Your task to perform on an android device: empty trash in the gmail app Image 0: 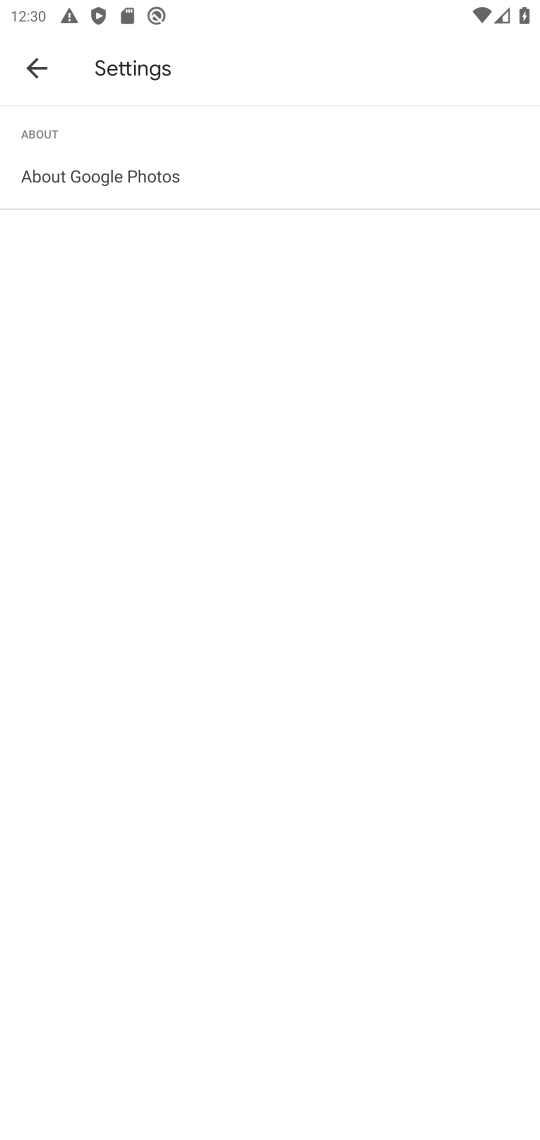
Step 0: press home button
Your task to perform on an android device: empty trash in the gmail app Image 1: 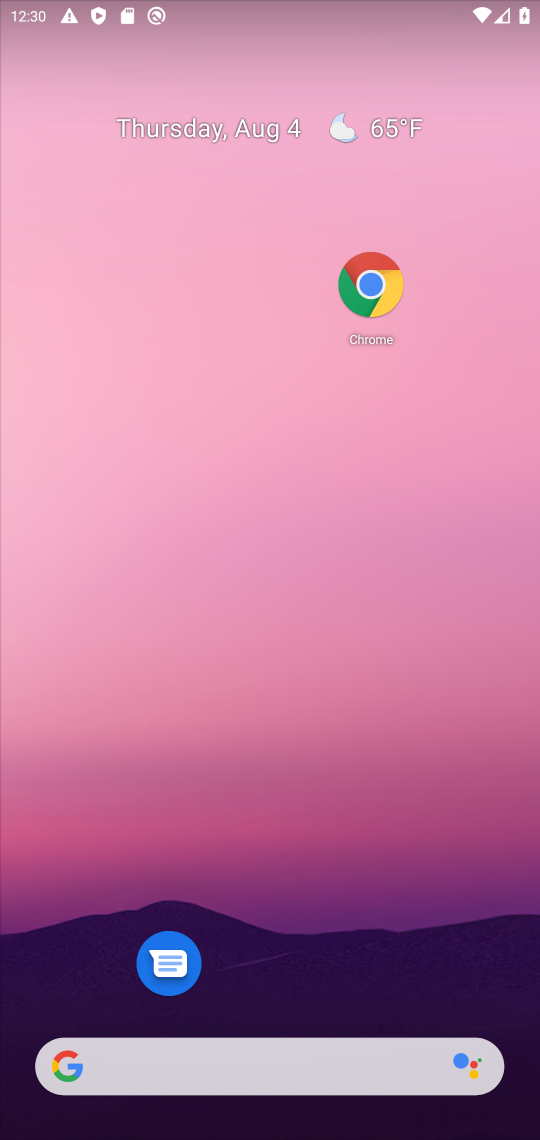
Step 1: drag from (337, 992) to (271, 347)
Your task to perform on an android device: empty trash in the gmail app Image 2: 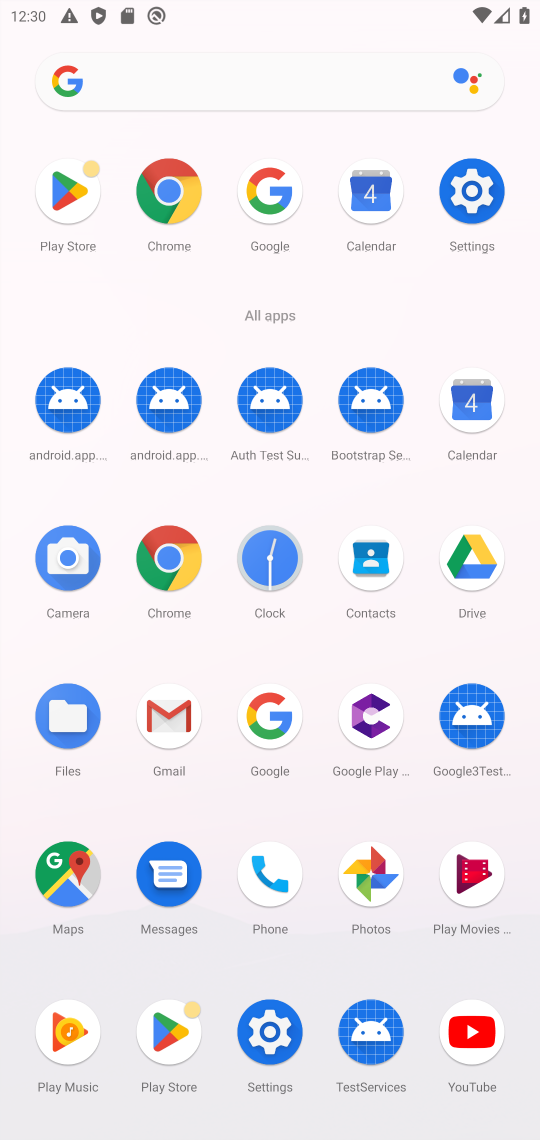
Step 2: click (163, 707)
Your task to perform on an android device: empty trash in the gmail app Image 3: 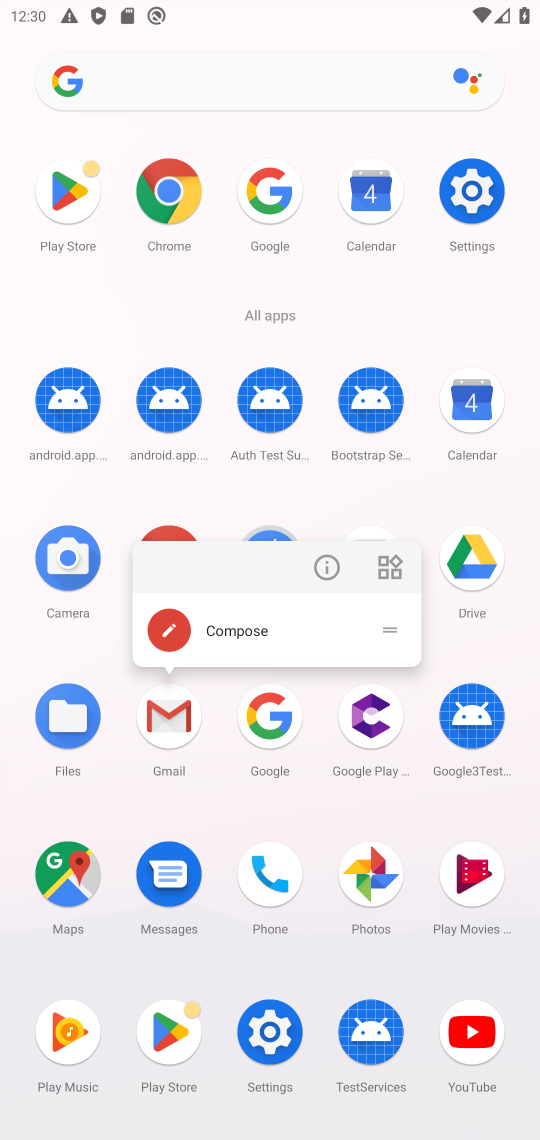
Step 3: click (177, 719)
Your task to perform on an android device: empty trash in the gmail app Image 4: 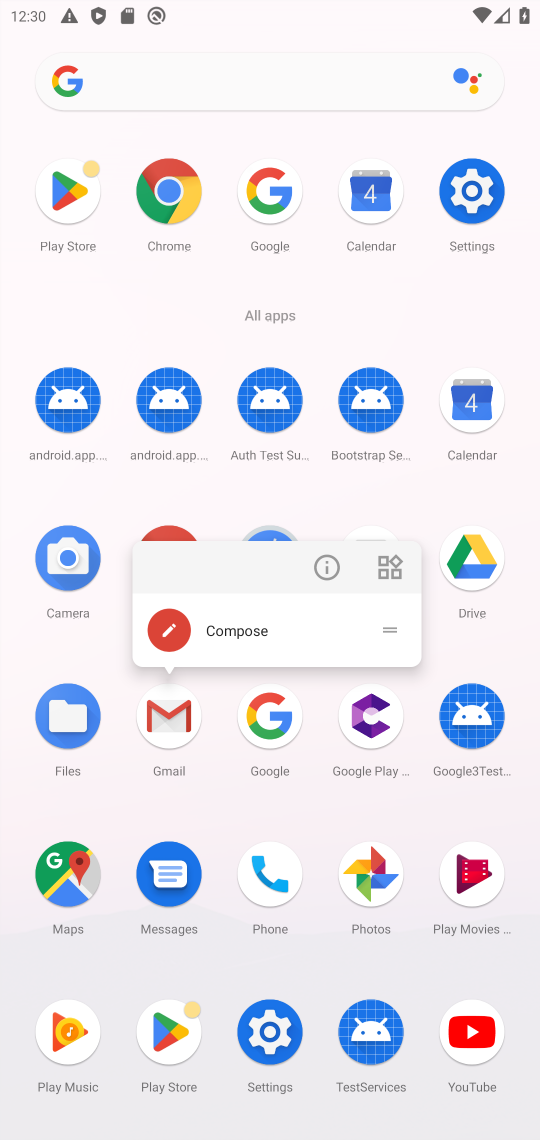
Step 4: click (177, 719)
Your task to perform on an android device: empty trash in the gmail app Image 5: 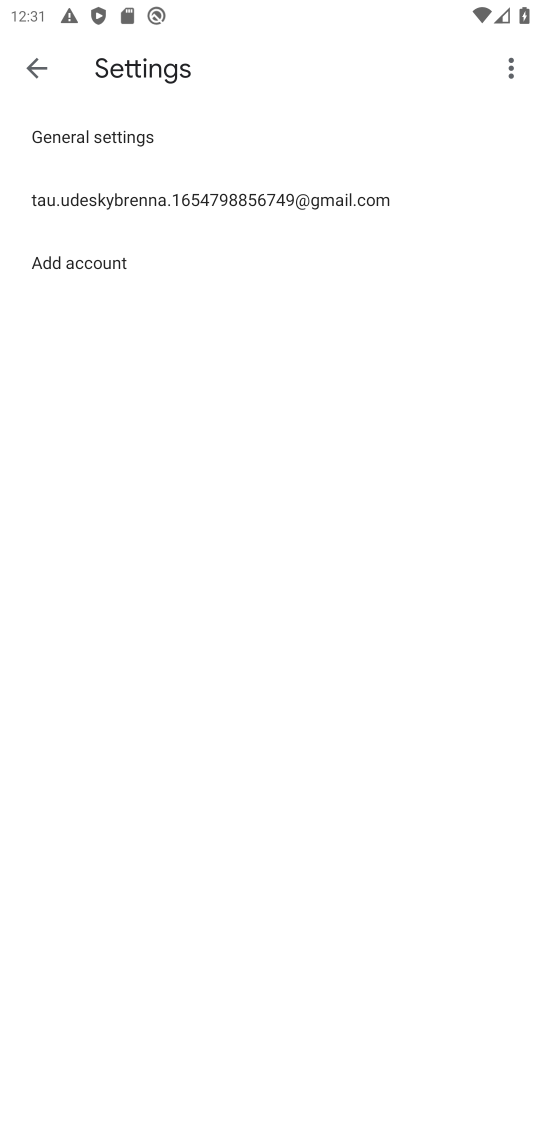
Step 5: click (52, 61)
Your task to perform on an android device: empty trash in the gmail app Image 6: 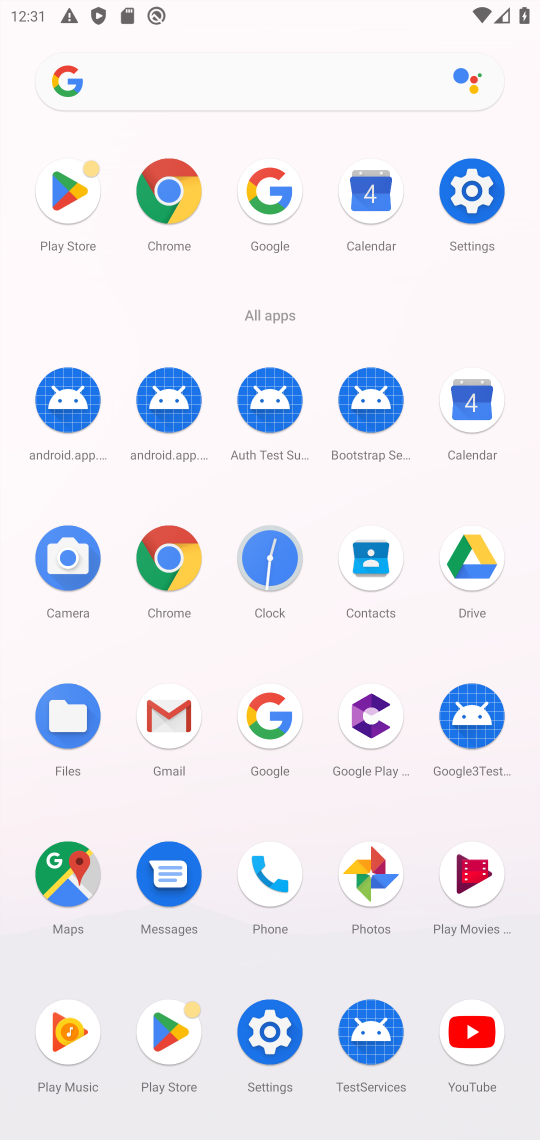
Step 6: click (151, 732)
Your task to perform on an android device: empty trash in the gmail app Image 7: 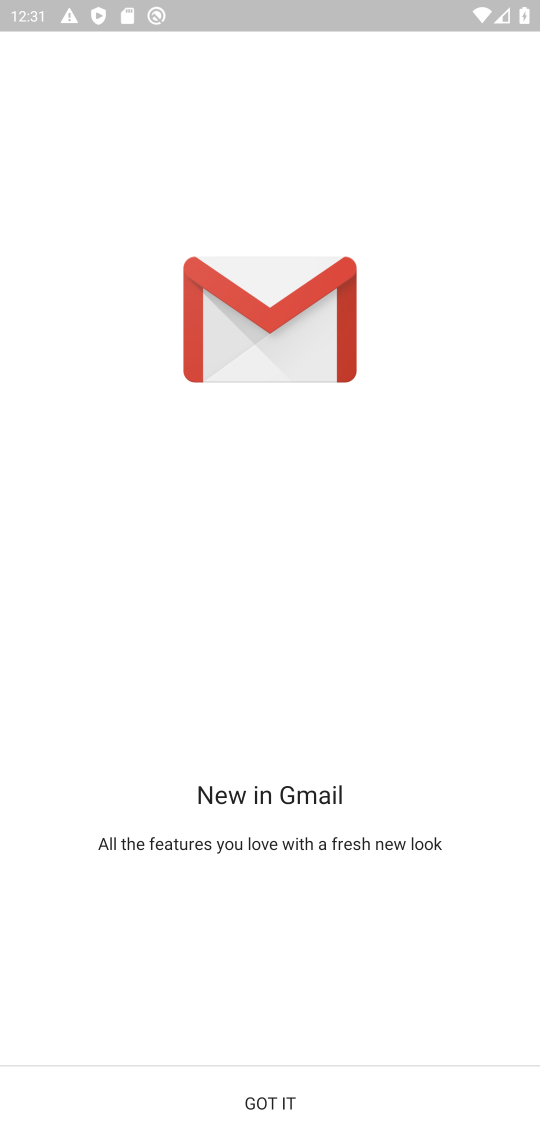
Step 7: click (256, 1085)
Your task to perform on an android device: empty trash in the gmail app Image 8: 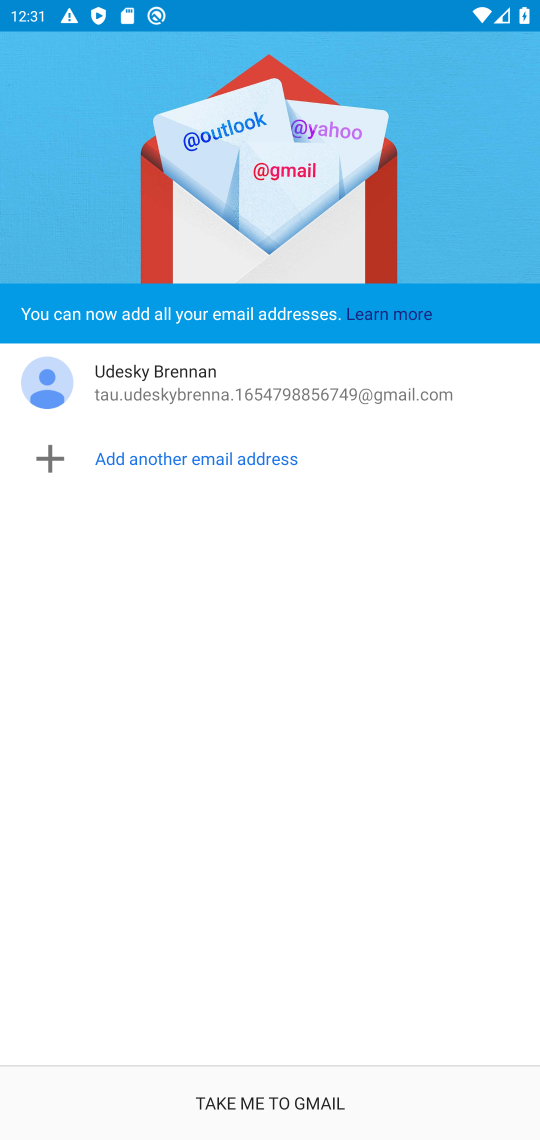
Step 8: click (270, 1087)
Your task to perform on an android device: empty trash in the gmail app Image 9: 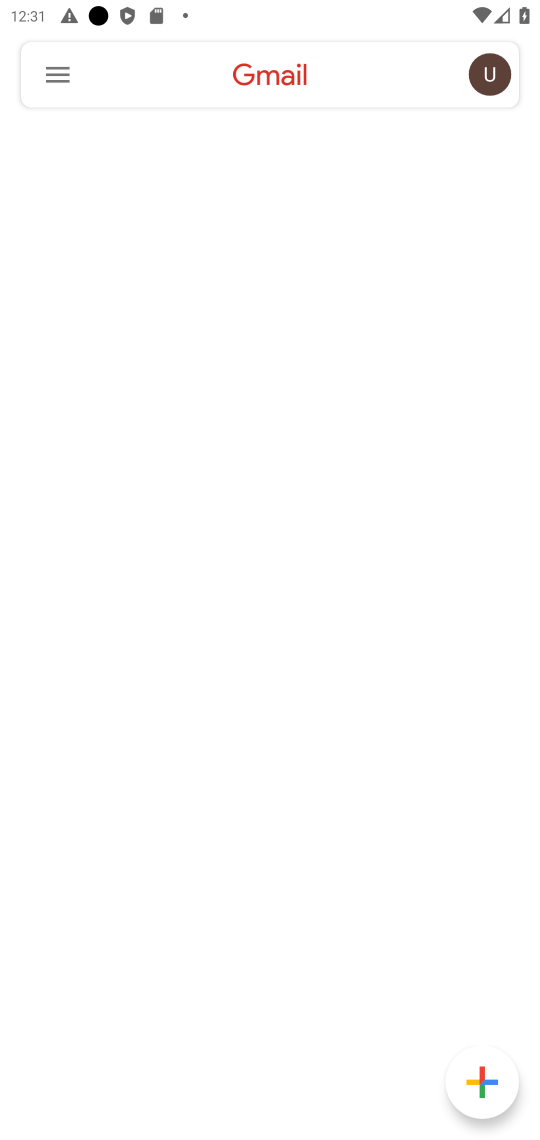
Step 9: click (68, 56)
Your task to perform on an android device: empty trash in the gmail app Image 10: 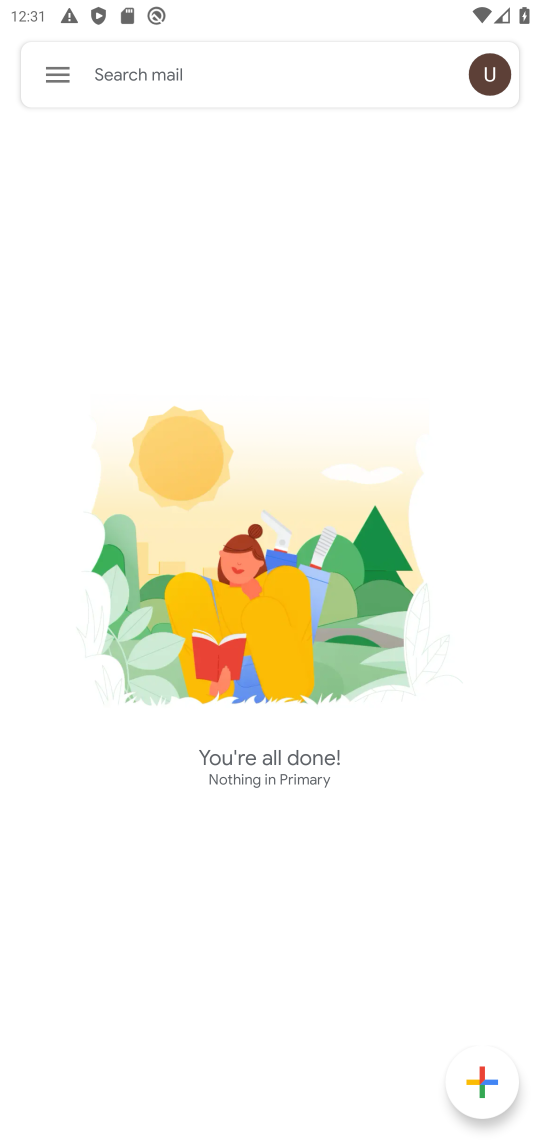
Step 10: click (63, 73)
Your task to perform on an android device: empty trash in the gmail app Image 11: 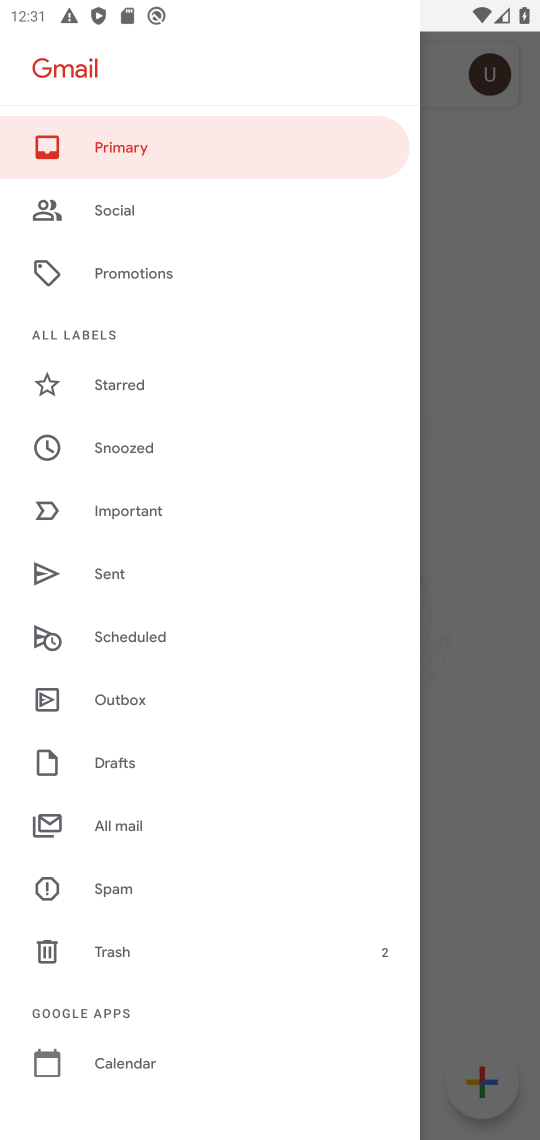
Step 11: click (120, 941)
Your task to perform on an android device: empty trash in the gmail app Image 12: 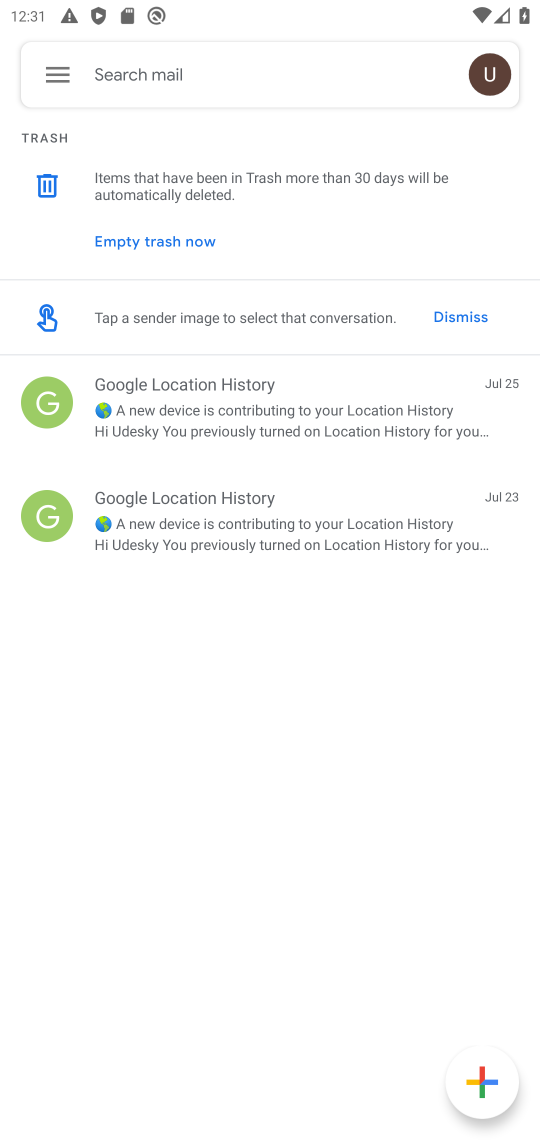
Step 12: click (143, 235)
Your task to perform on an android device: empty trash in the gmail app Image 13: 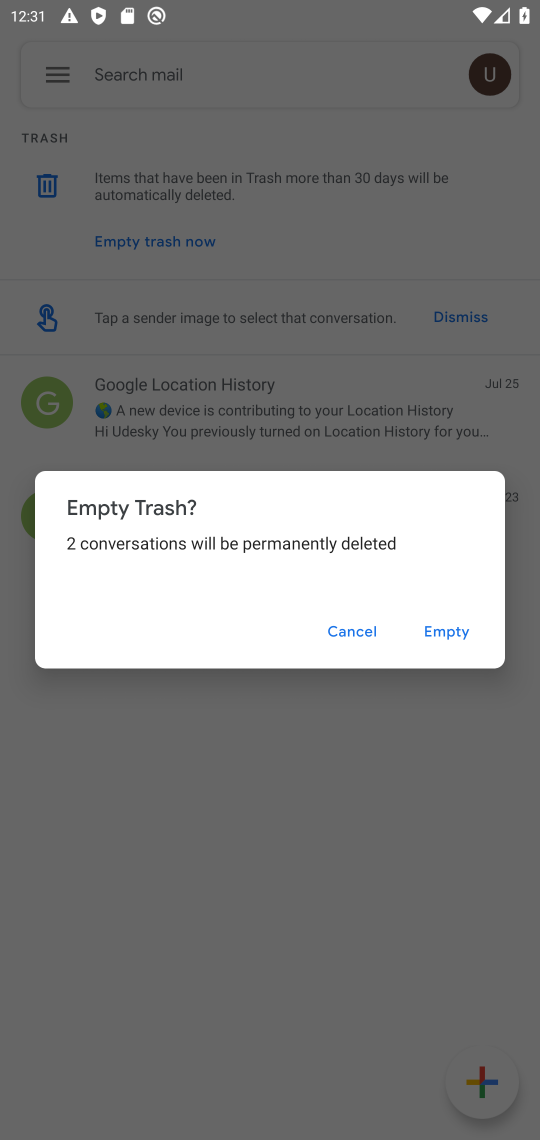
Step 13: click (439, 627)
Your task to perform on an android device: empty trash in the gmail app Image 14: 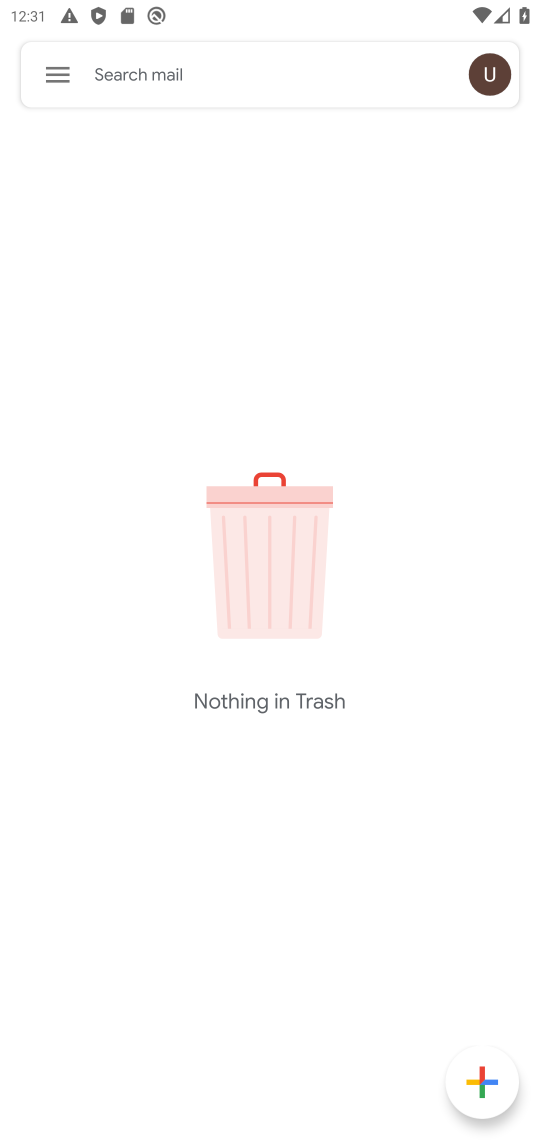
Step 14: task complete